Your task to perform on an android device: toggle pop-ups in chrome Image 0: 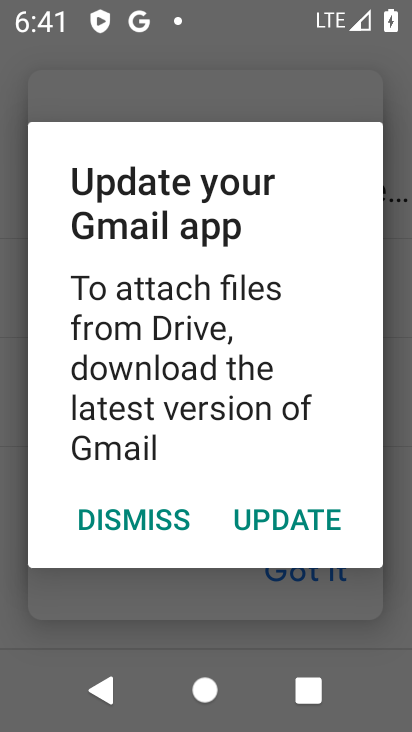
Step 0: press home button
Your task to perform on an android device: toggle pop-ups in chrome Image 1: 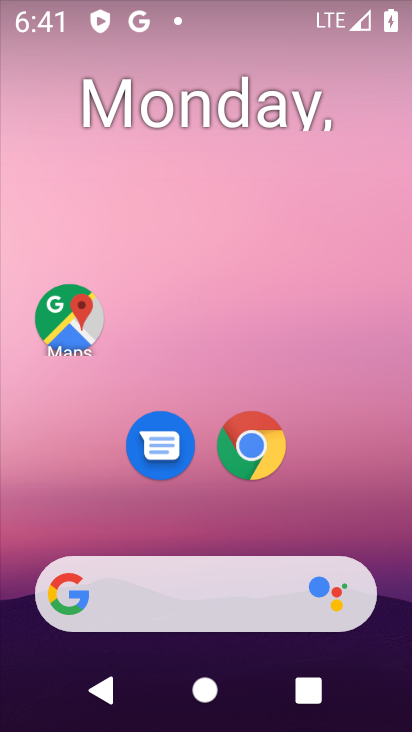
Step 1: click (248, 430)
Your task to perform on an android device: toggle pop-ups in chrome Image 2: 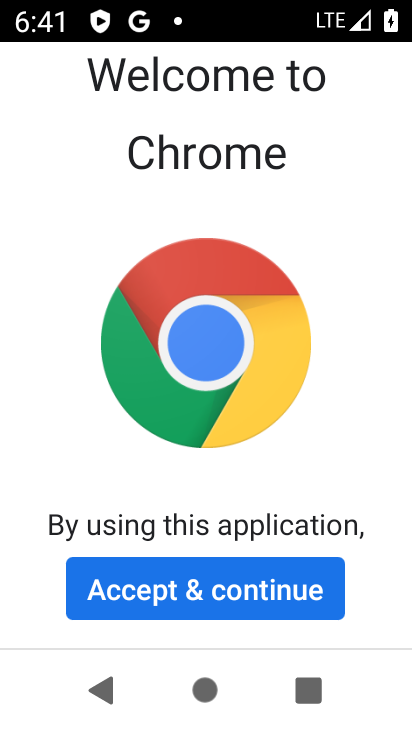
Step 2: click (220, 596)
Your task to perform on an android device: toggle pop-ups in chrome Image 3: 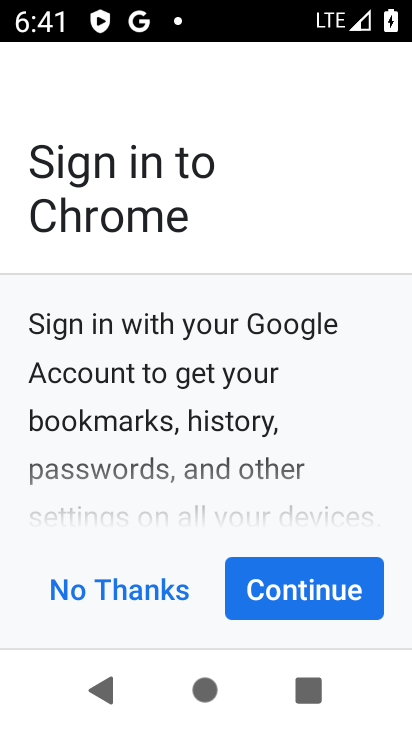
Step 3: click (308, 600)
Your task to perform on an android device: toggle pop-ups in chrome Image 4: 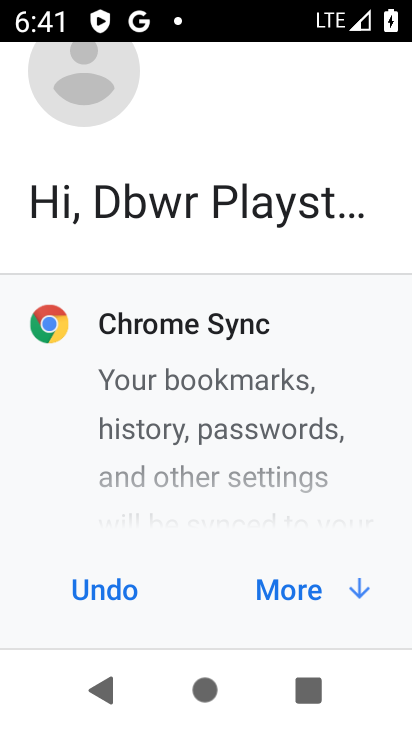
Step 4: click (303, 580)
Your task to perform on an android device: toggle pop-ups in chrome Image 5: 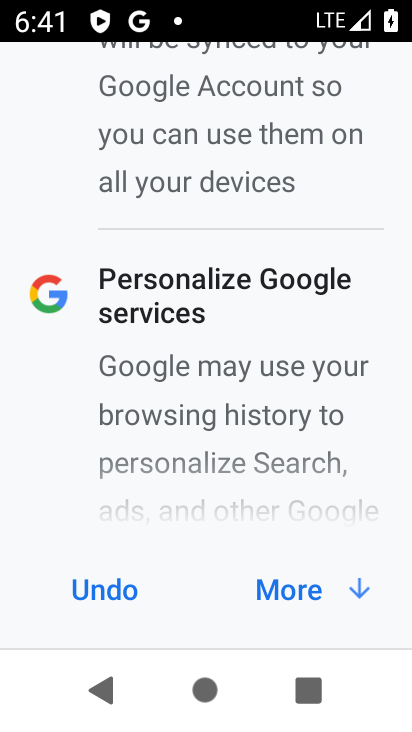
Step 5: click (315, 583)
Your task to perform on an android device: toggle pop-ups in chrome Image 6: 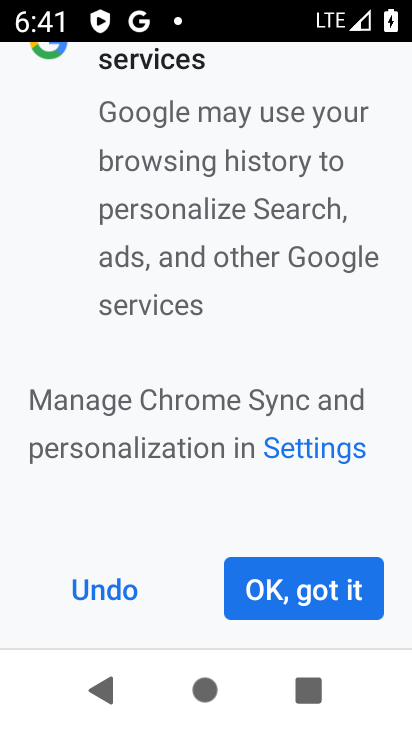
Step 6: click (315, 583)
Your task to perform on an android device: toggle pop-ups in chrome Image 7: 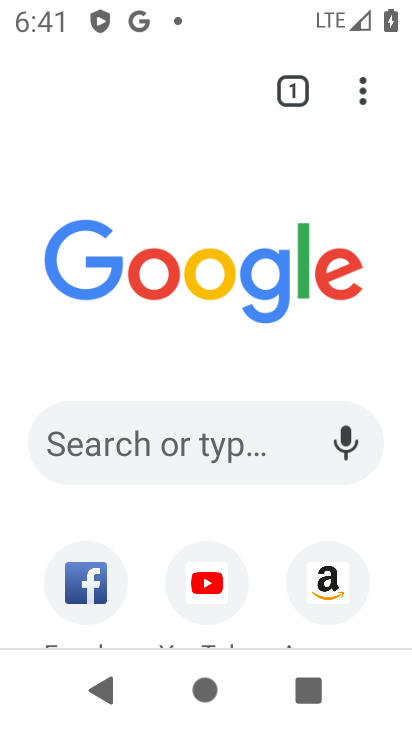
Step 7: click (371, 477)
Your task to perform on an android device: toggle pop-ups in chrome Image 8: 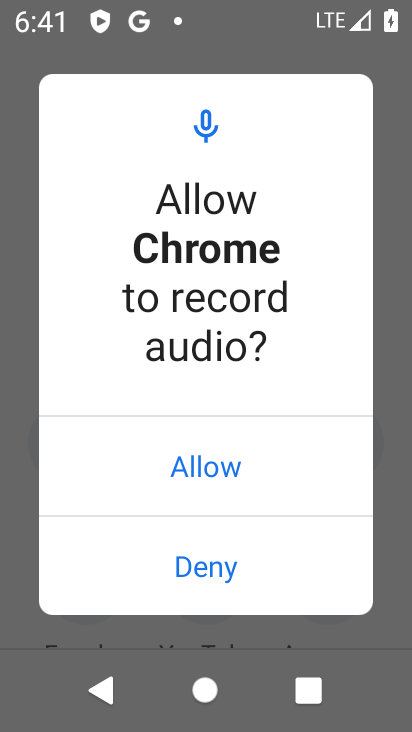
Step 8: click (268, 576)
Your task to perform on an android device: toggle pop-ups in chrome Image 9: 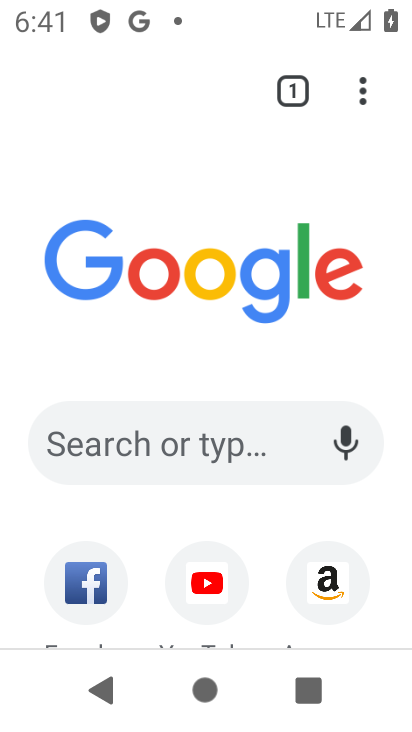
Step 9: click (373, 100)
Your task to perform on an android device: toggle pop-ups in chrome Image 10: 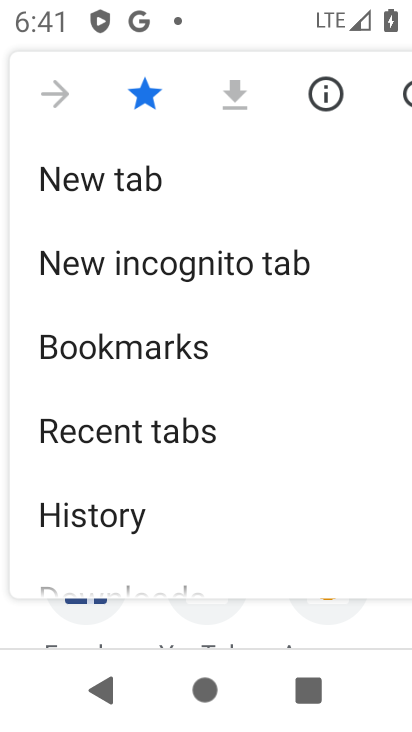
Step 10: drag from (281, 475) to (196, 146)
Your task to perform on an android device: toggle pop-ups in chrome Image 11: 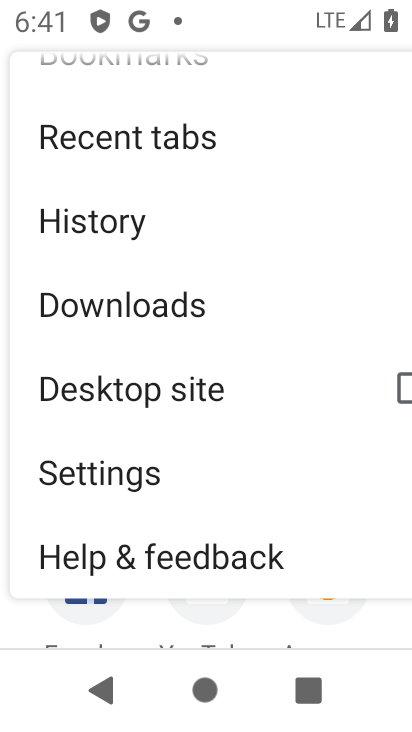
Step 11: click (207, 469)
Your task to perform on an android device: toggle pop-ups in chrome Image 12: 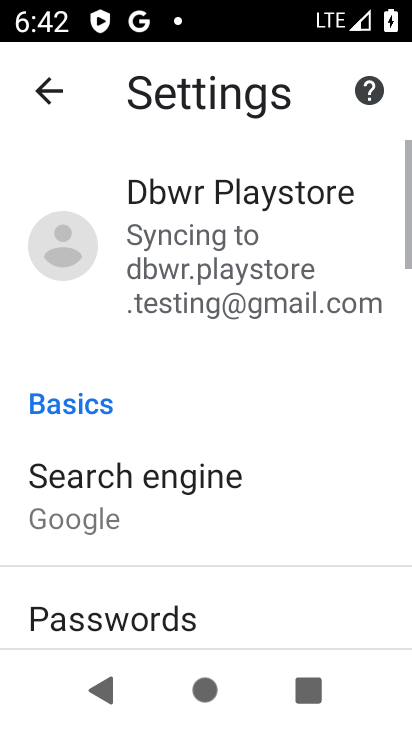
Step 12: drag from (251, 503) to (185, 156)
Your task to perform on an android device: toggle pop-ups in chrome Image 13: 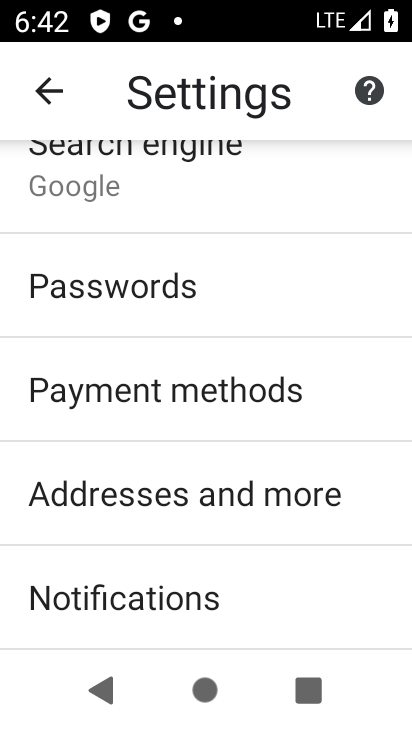
Step 13: drag from (238, 549) to (183, 84)
Your task to perform on an android device: toggle pop-ups in chrome Image 14: 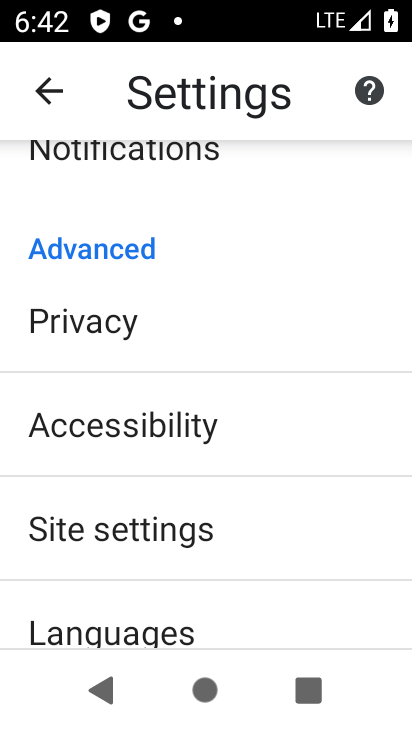
Step 14: click (188, 543)
Your task to perform on an android device: toggle pop-ups in chrome Image 15: 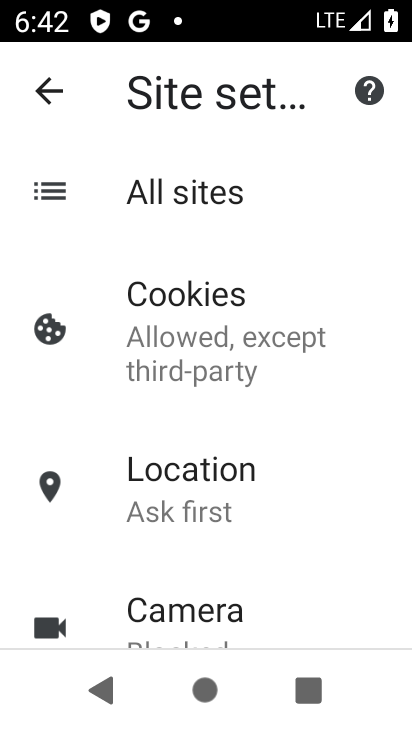
Step 15: drag from (312, 534) to (248, 329)
Your task to perform on an android device: toggle pop-ups in chrome Image 16: 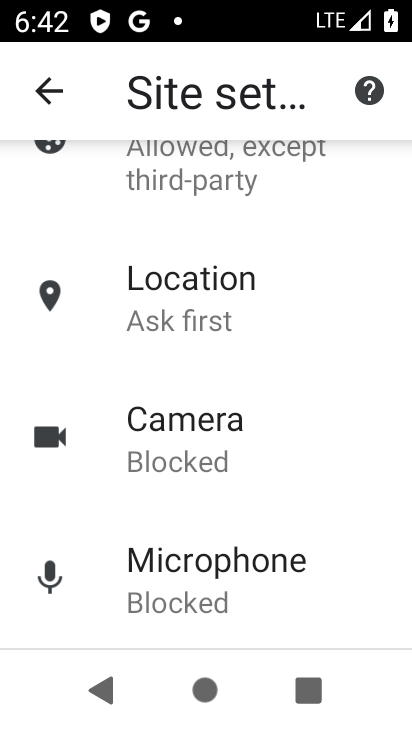
Step 16: drag from (274, 536) to (199, 219)
Your task to perform on an android device: toggle pop-ups in chrome Image 17: 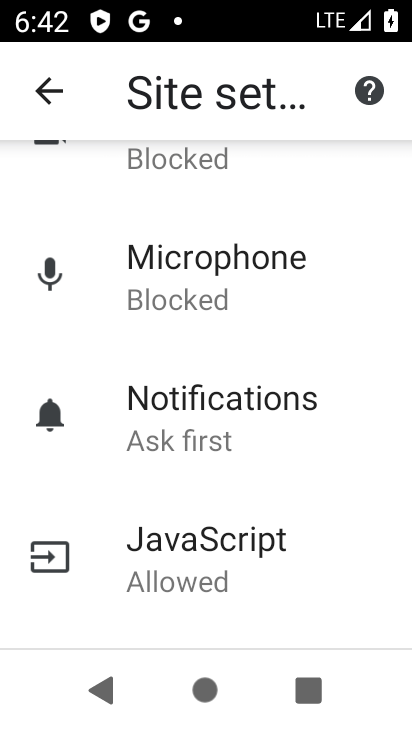
Step 17: drag from (268, 501) to (161, 0)
Your task to perform on an android device: toggle pop-ups in chrome Image 18: 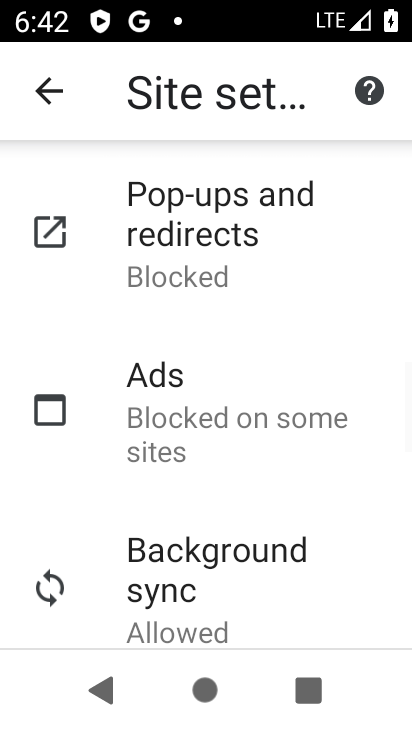
Step 18: click (222, 220)
Your task to perform on an android device: toggle pop-ups in chrome Image 19: 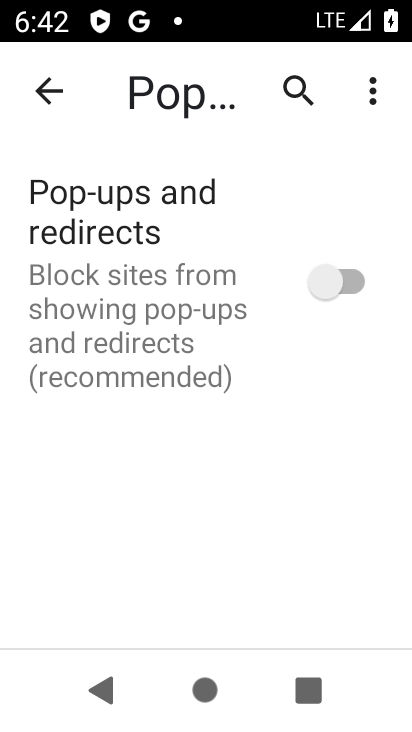
Step 19: click (346, 290)
Your task to perform on an android device: toggle pop-ups in chrome Image 20: 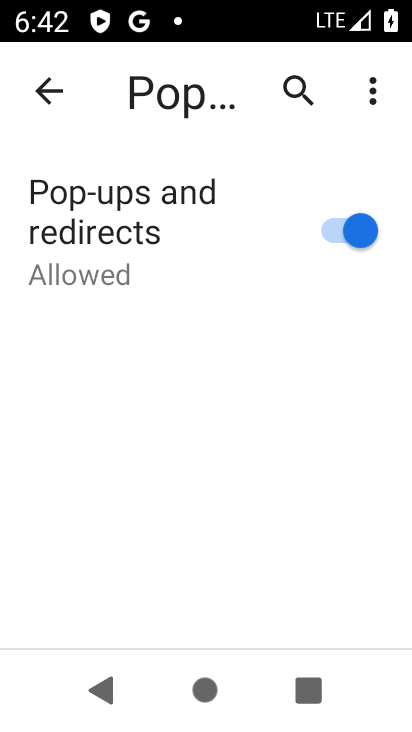
Step 20: task complete